Your task to perform on an android device: turn off picture-in-picture Image 0: 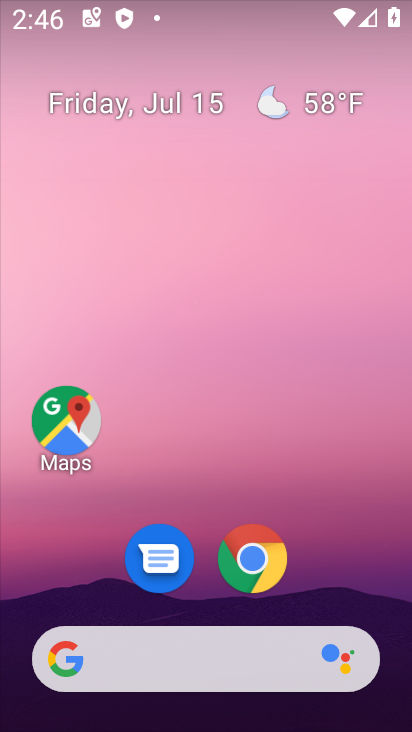
Step 0: drag from (355, 578) to (365, 65)
Your task to perform on an android device: turn off picture-in-picture Image 1: 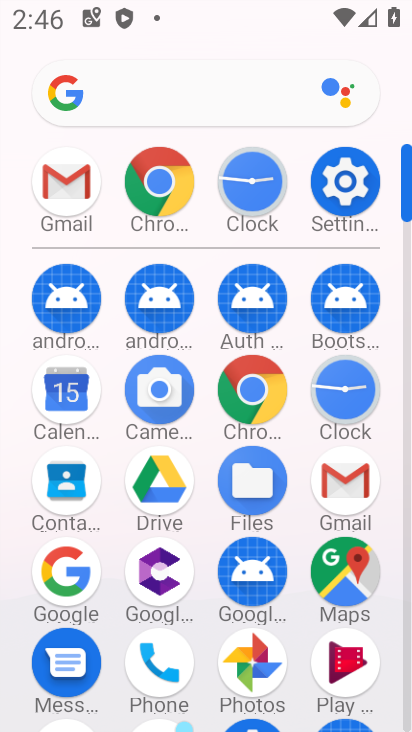
Step 1: click (345, 195)
Your task to perform on an android device: turn off picture-in-picture Image 2: 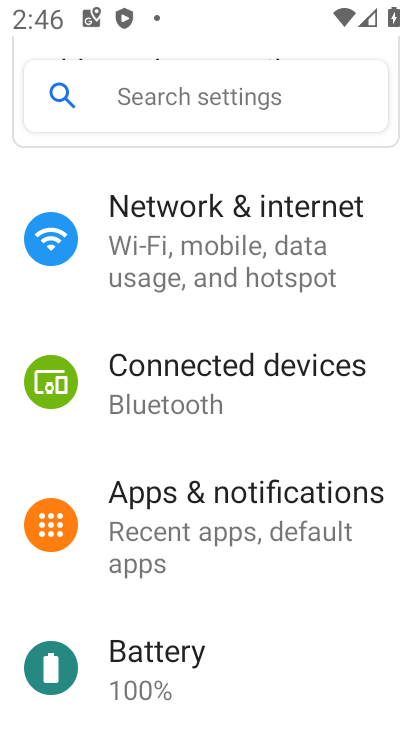
Step 2: drag from (381, 257) to (385, 376)
Your task to perform on an android device: turn off picture-in-picture Image 3: 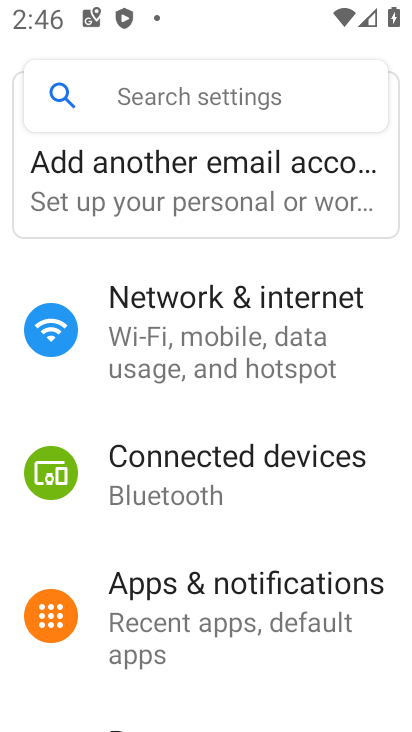
Step 3: drag from (392, 224) to (387, 466)
Your task to perform on an android device: turn off picture-in-picture Image 4: 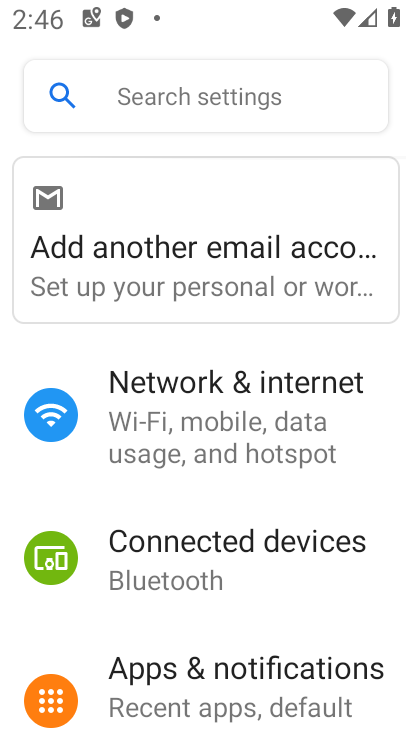
Step 4: drag from (389, 502) to (373, 406)
Your task to perform on an android device: turn off picture-in-picture Image 5: 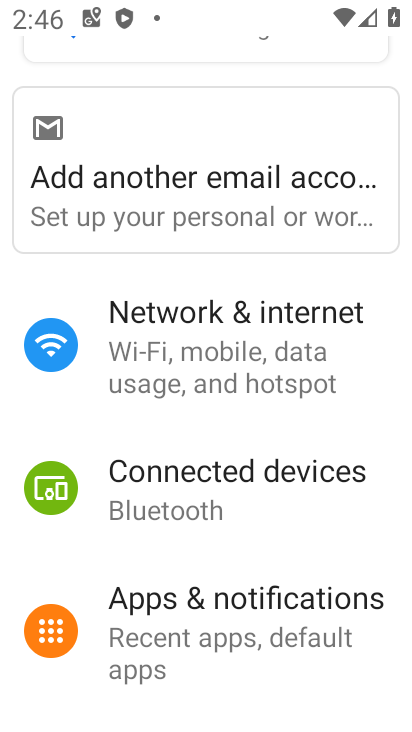
Step 5: drag from (379, 519) to (379, 401)
Your task to perform on an android device: turn off picture-in-picture Image 6: 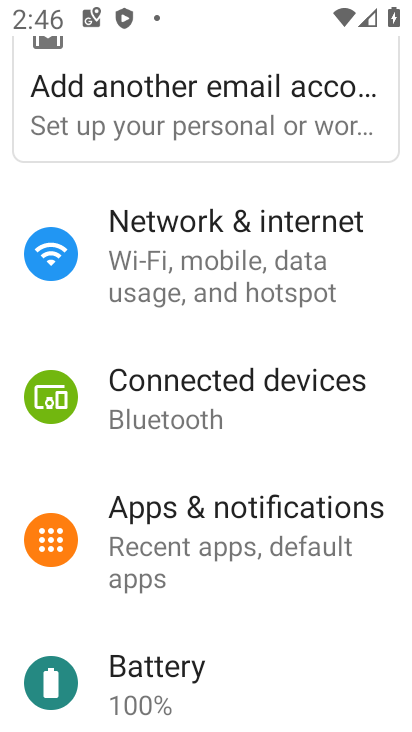
Step 6: drag from (351, 579) to (356, 425)
Your task to perform on an android device: turn off picture-in-picture Image 7: 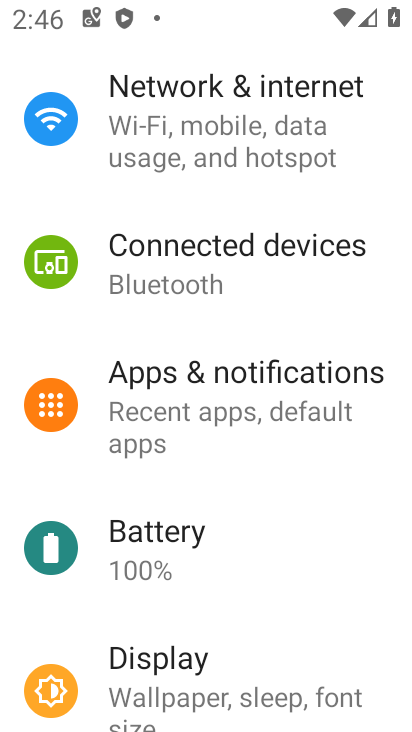
Step 7: click (285, 404)
Your task to perform on an android device: turn off picture-in-picture Image 8: 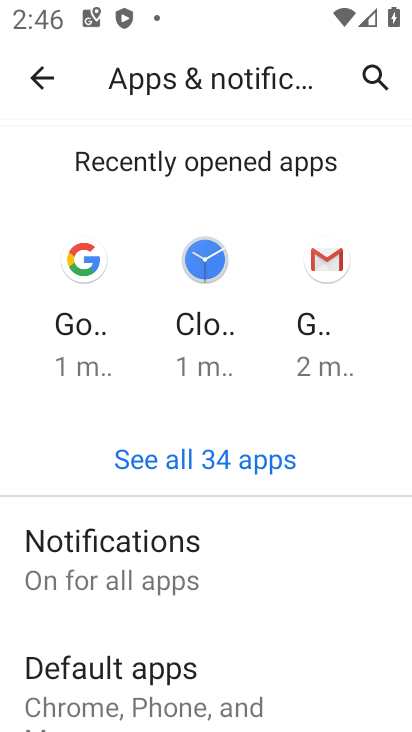
Step 8: drag from (323, 614) to (338, 482)
Your task to perform on an android device: turn off picture-in-picture Image 9: 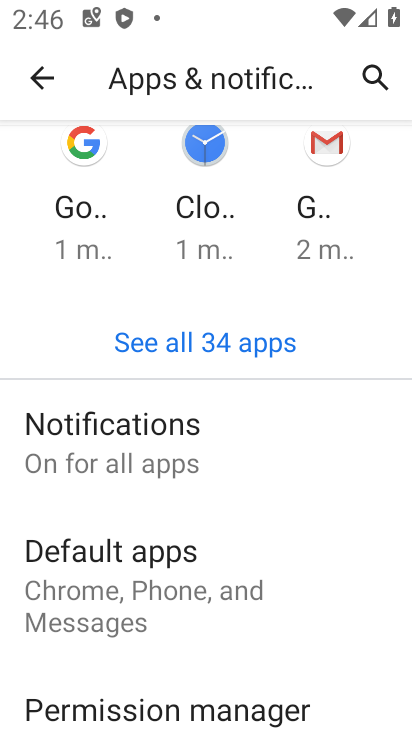
Step 9: drag from (363, 616) to (354, 513)
Your task to perform on an android device: turn off picture-in-picture Image 10: 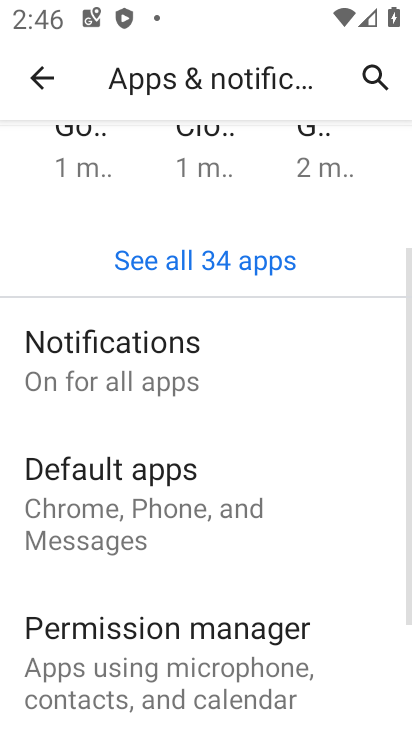
Step 10: drag from (353, 646) to (348, 520)
Your task to perform on an android device: turn off picture-in-picture Image 11: 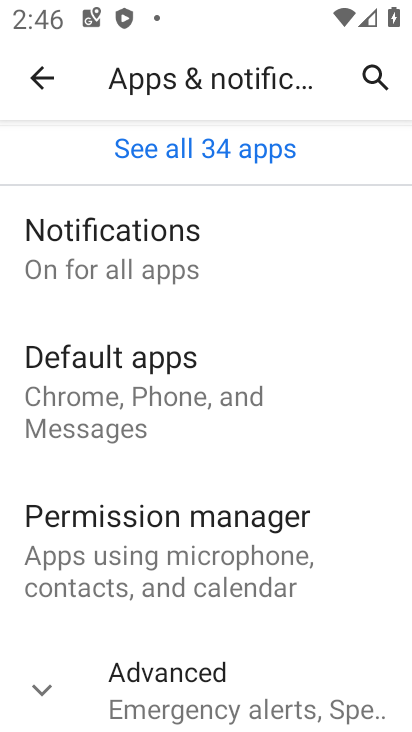
Step 11: drag from (352, 605) to (354, 497)
Your task to perform on an android device: turn off picture-in-picture Image 12: 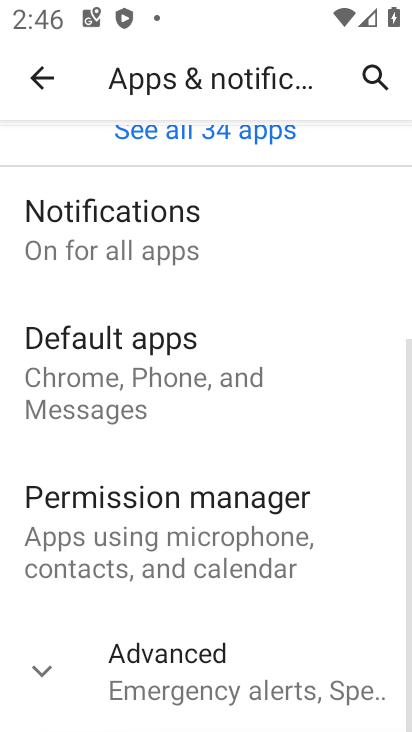
Step 12: click (312, 675)
Your task to perform on an android device: turn off picture-in-picture Image 13: 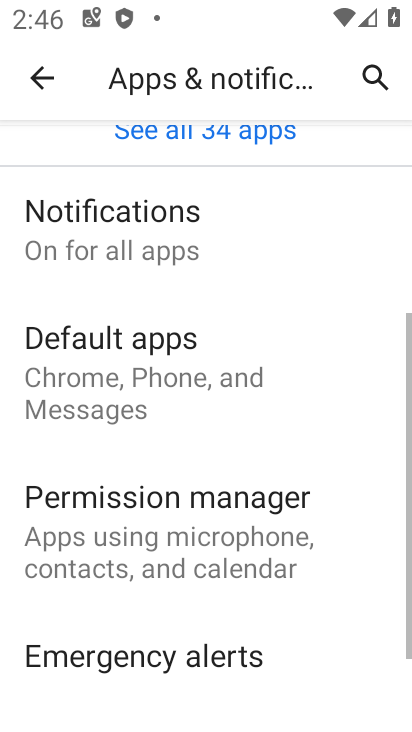
Step 13: drag from (312, 675) to (342, 572)
Your task to perform on an android device: turn off picture-in-picture Image 14: 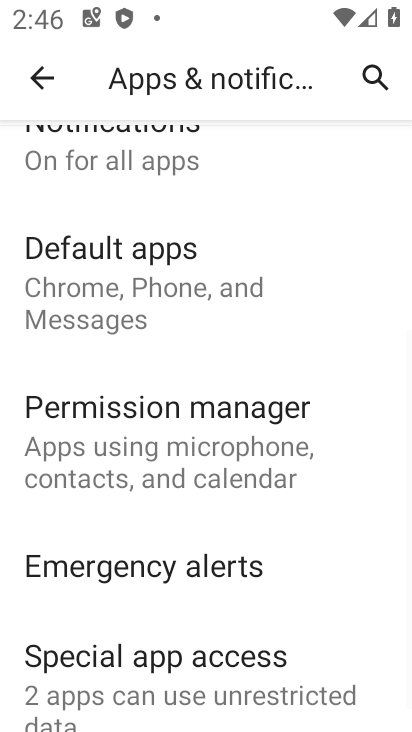
Step 14: drag from (352, 631) to (361, 464)
Your task to perform on an android device: turn off picture-in-picture Image 15: 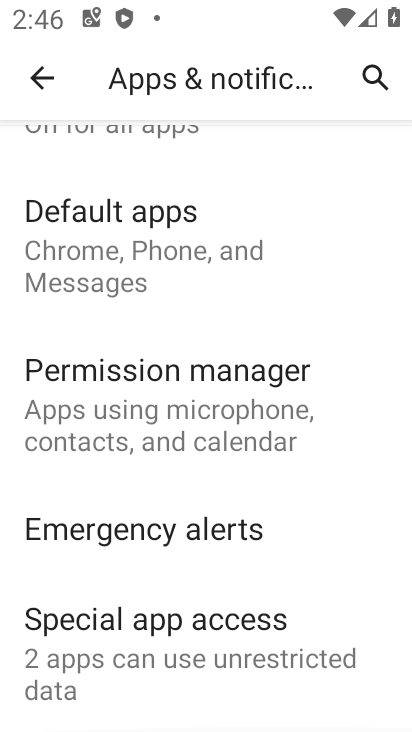
Step 15: click (301, 605)
Your task to perform on an android device: turn off picture-in-picture Image 16: 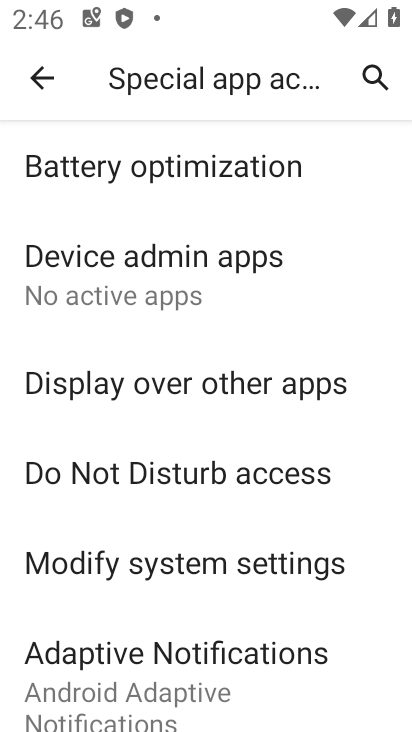
Step 16: drag from (366, 592) to (366, 486)
Your task to perform on an android device: turn off picture-in-picture Image 17: 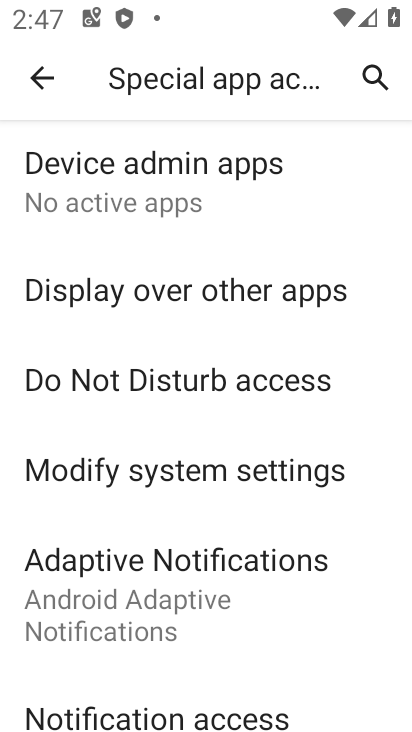
Step 17: drag from (351, 606) to (351, 487)
Your task to perform on an android device: turn off picture-in-picture Image 18: 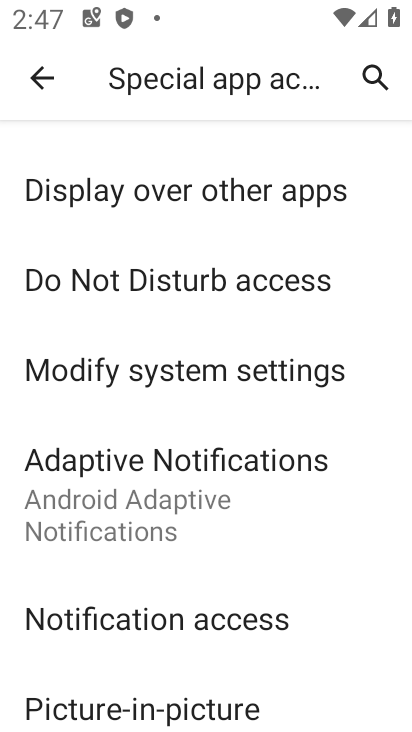
Step 18: drag from (362, 602) to (364, 475)
Your task to perform on an android device: turn off picture-in-picture Image 19: 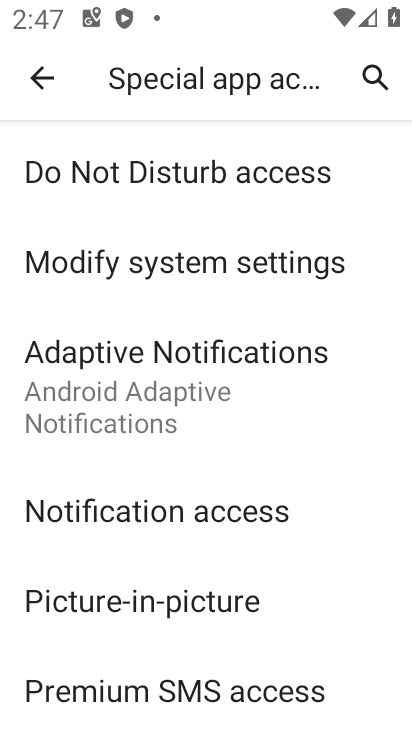
Step 19: click (326, 586)
Your task to perform on an android device: turn off picture-in-picture Image 20: 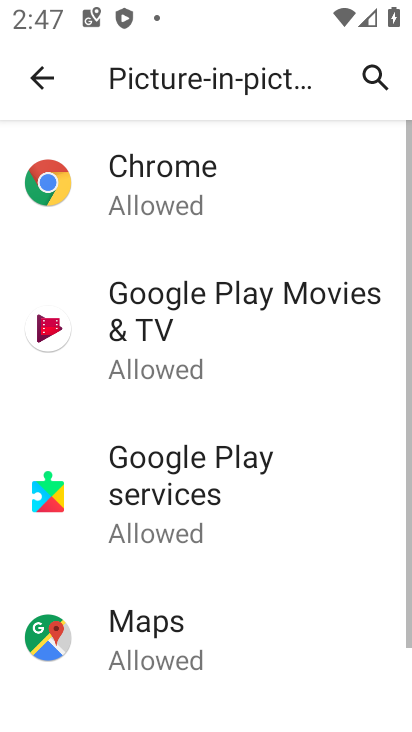
Step 20: drag from (326, 611) to (352, 380)
Your task to perform on an android device: turn off picture-in-picture Image 21: 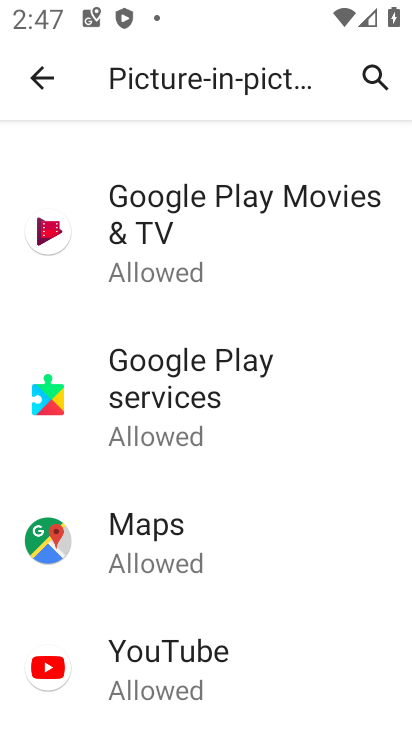
Step 21: click (257, 648)
Your task to perform on an android device: turn off picture-in-picture Image 22: 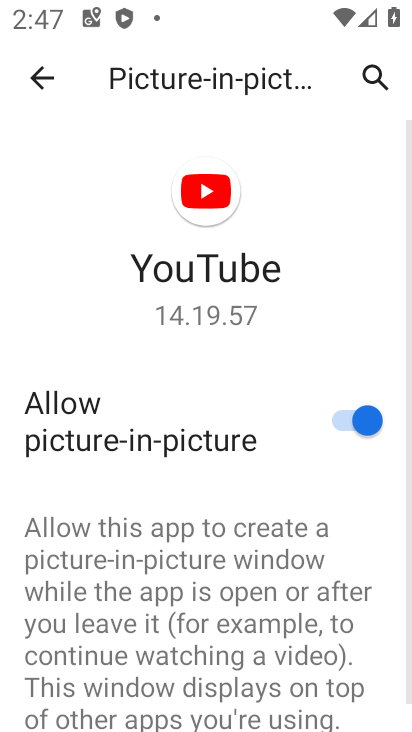
Step 22: click (377, 417)
Your task to perform on an android device: turn off picture-in-picture Image 23: 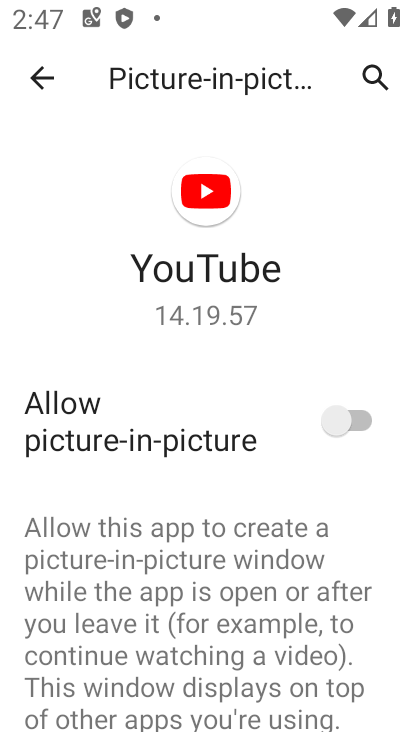
Step 23: task complete